Your task to perform on an android device: Search for vegetarian restaurants on Maps Image 0: 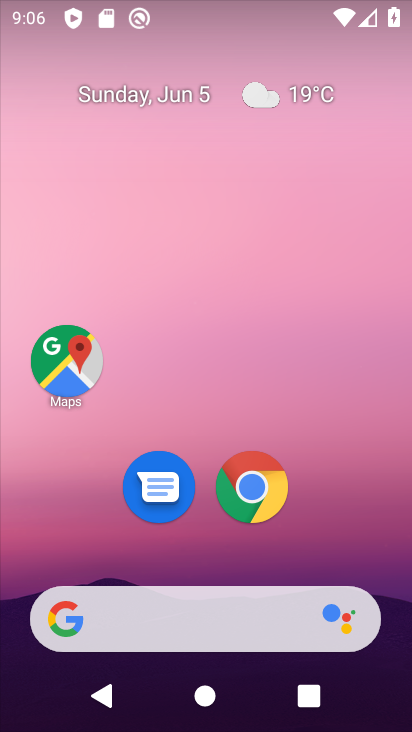
Step 0: click (67, 356)
Your task to perform on an android device: Search for vegetarian restaurants on Maps Image 1: 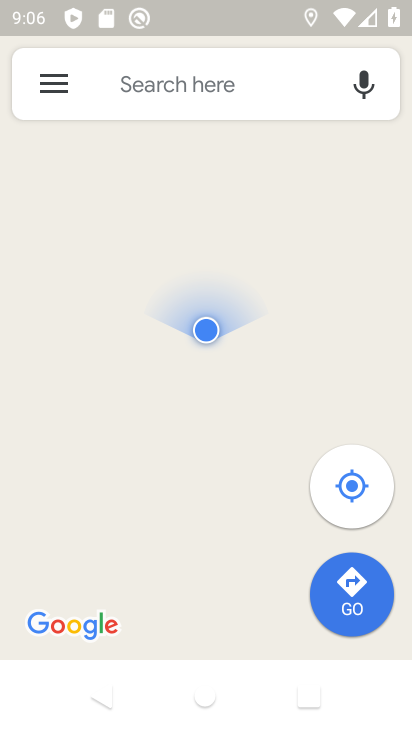
Step 1: click (186, 94)
Your task to perform on an android device: Search for vegetarian restaurants on Maps Image 2: 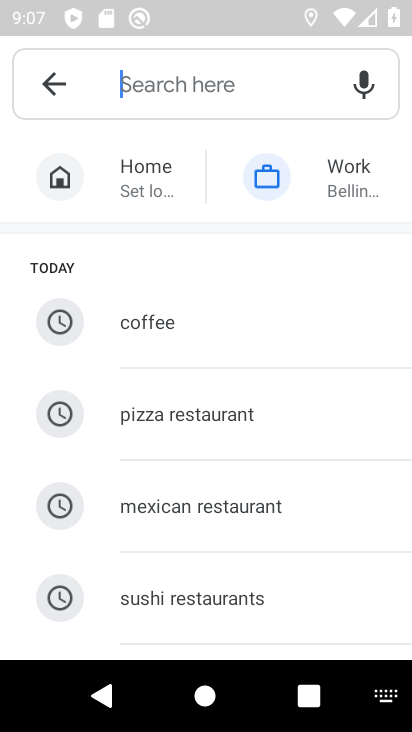
Step 2: type "vegetarian restaurants"
Your task to perform on an android device: Search for vegetarian restaurants on Maps Image 3: 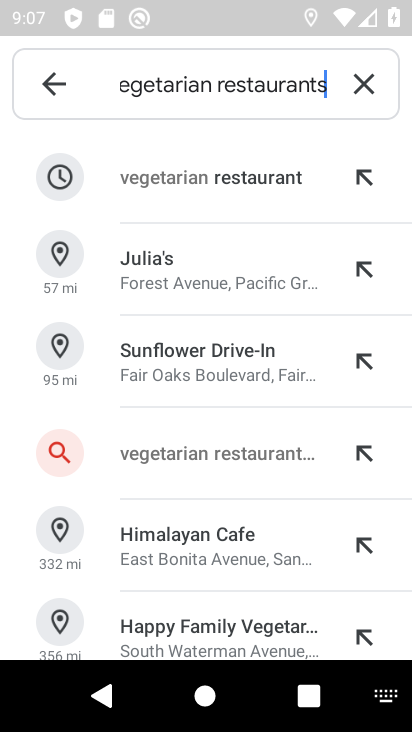
Step 3: click (253, 180)
Your task to perform on an android device: Search for vegetarian restaurants on Maps Image 4: 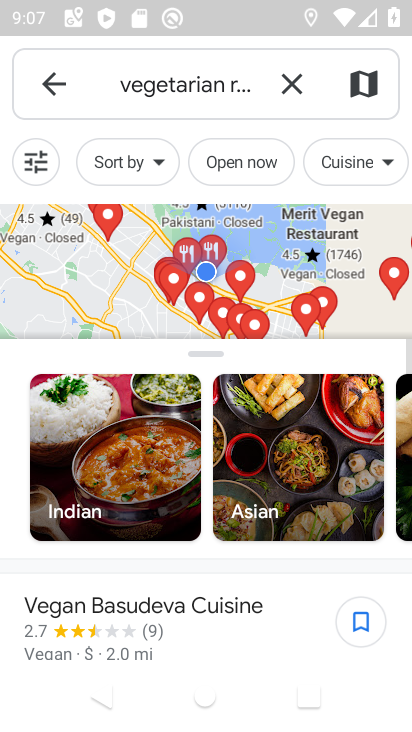
Step 4: task complete